Your task to perform on an android device: toggle show notifications on the lock screen Image 0: 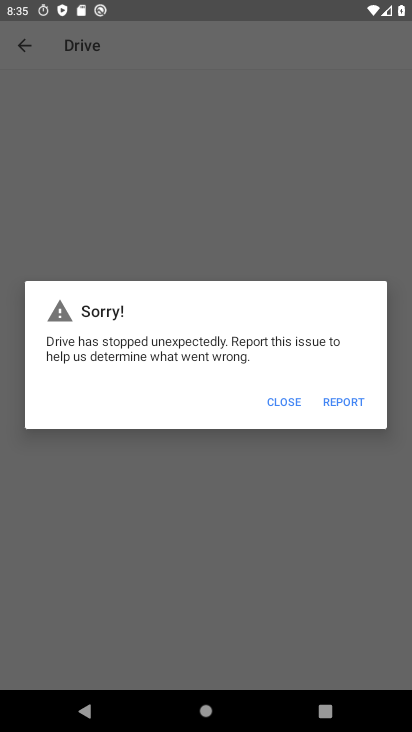
Step 0: press home button
Your task to perform on an android device: toggle show notifications on the lock screen Image 1: 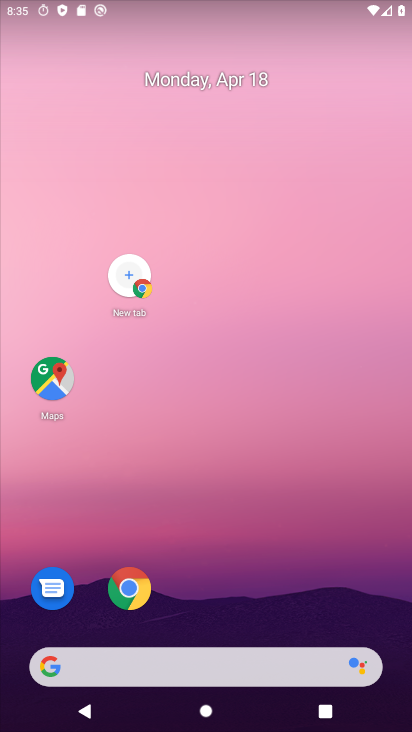
Step 1: drag from (306, 541) to (400, 19)
Your task to perform on an android device: toggle show notifications on the lock screen Image 2: 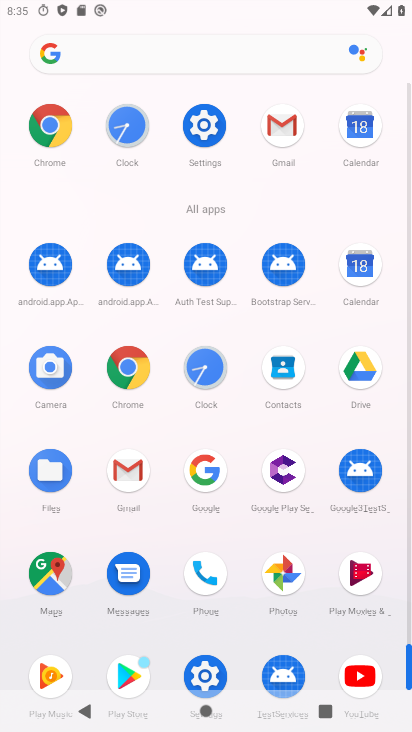
Step 2: click (197, 131)
Your task to perform on an android device: toggle show notifications on the lock screen Image 3: 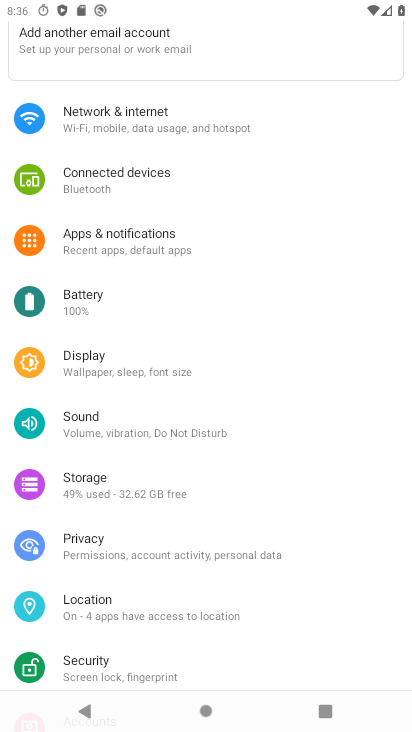
Step 3: click (163, 238)
Your task to perform on an android device: toggle show notifications on the lock screen Image 4: 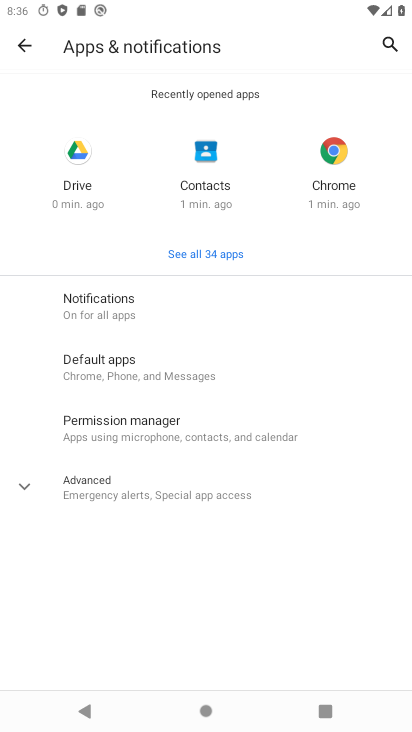
Step 4: click (95, 310)
Your task to perform on an android device: toggle show notifications on the lock screen Image 5: 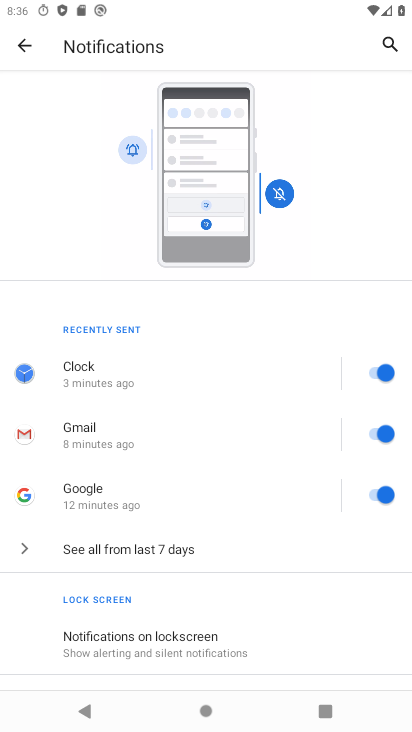
Step 5: drag from (171, 631) to (246, 192)
Your task to perform on an android device: toggle show notifications on the lock screen Image 6: 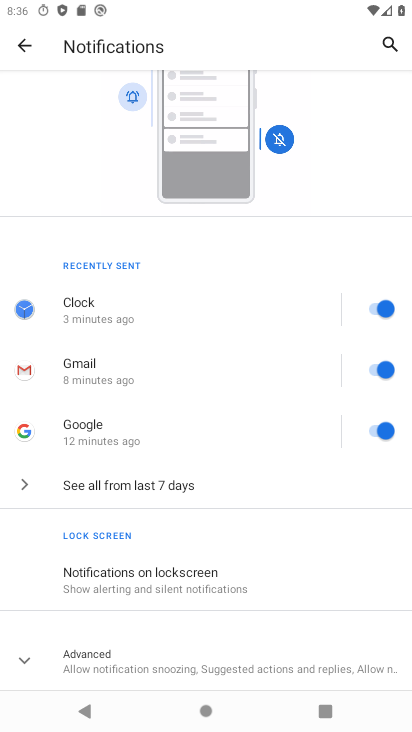
Step 6: click (175, 582)
Your task to perform on an android device: toggle show notifications on the lock screen Image 7: 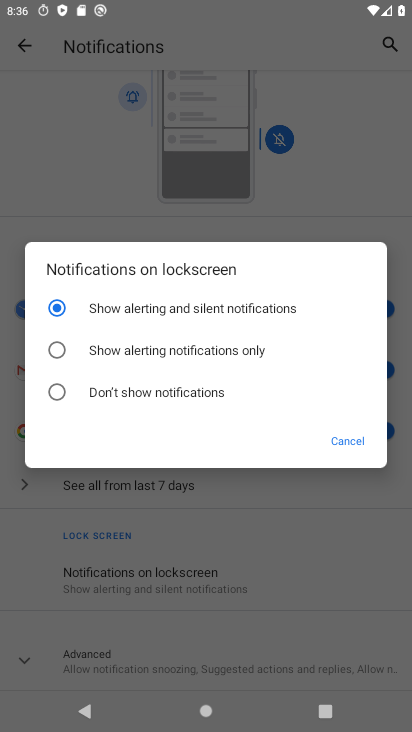
Step 7: click (55, 343)
Your task to perform on an android device: toggle show notifications on the lock screen Image 8: 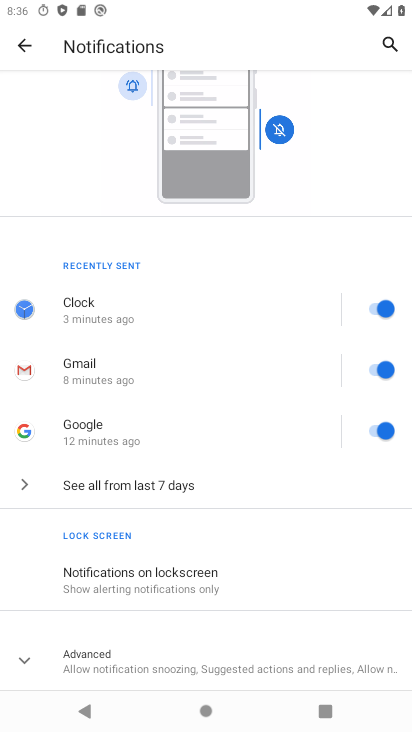
Step 8: task complete